Your task to perform on an android device: Open Amazon Image 0: 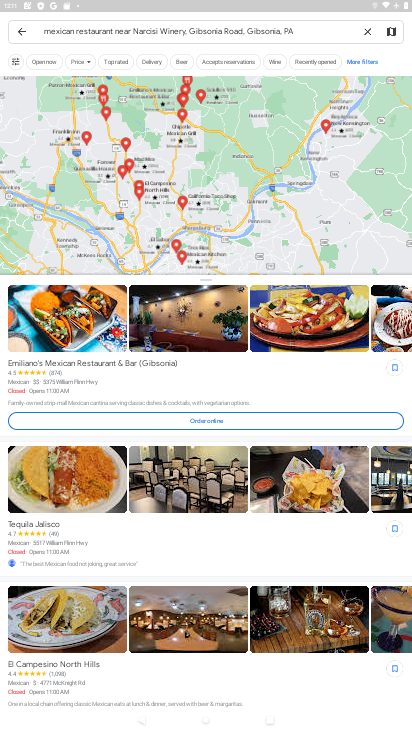
Step 0: press home button
Your task to perform on an android device: Open Amazon Image 1: 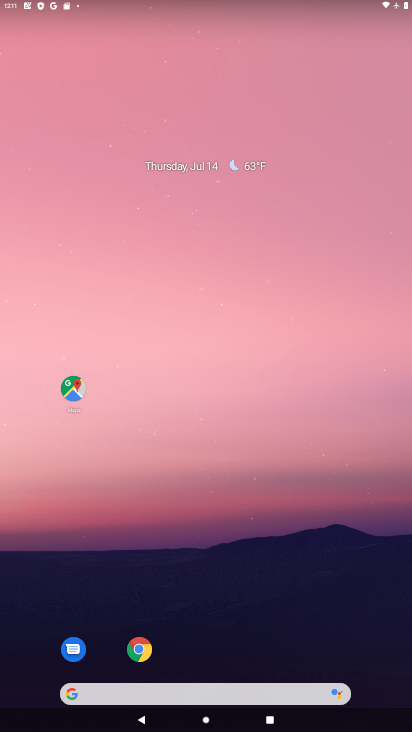
Step 1: click (133, 646)
Your task to perform on an android device: Open Amazon Image 2: 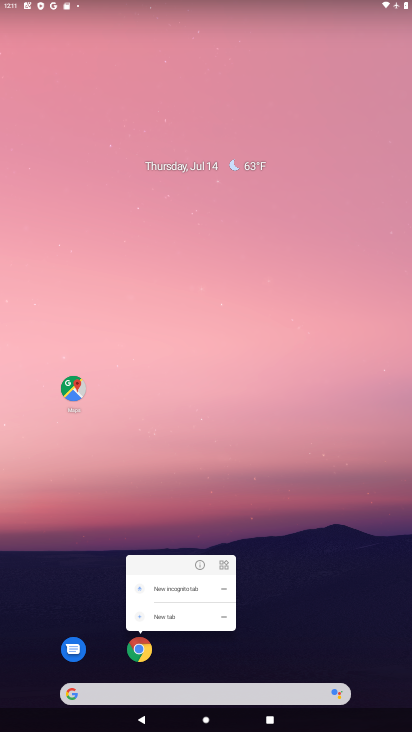
Step 2: click (133, 646)
Your task to perform on an android device: Open Amazon Image 3: 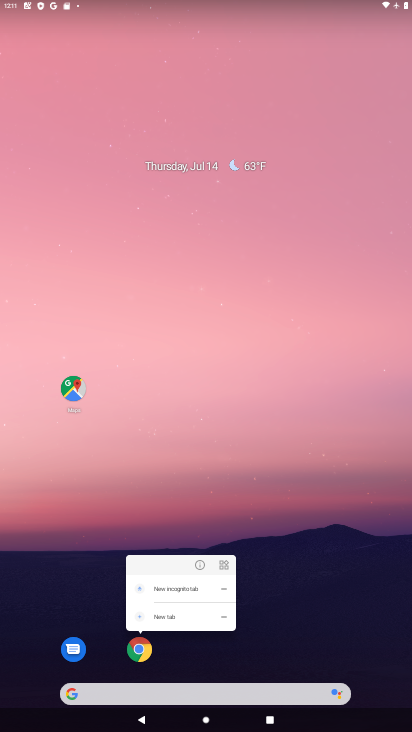
Step 3: click (221, 657)
Your task to perform on an android device: Open Amazon Image 4: 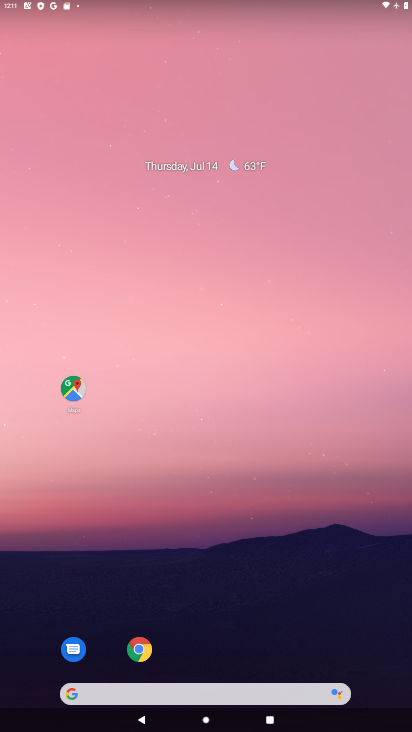
Step 4: drag from (221, 657) to (296, 297)
Your task to perform on an android device: Open Amazon Image 5: 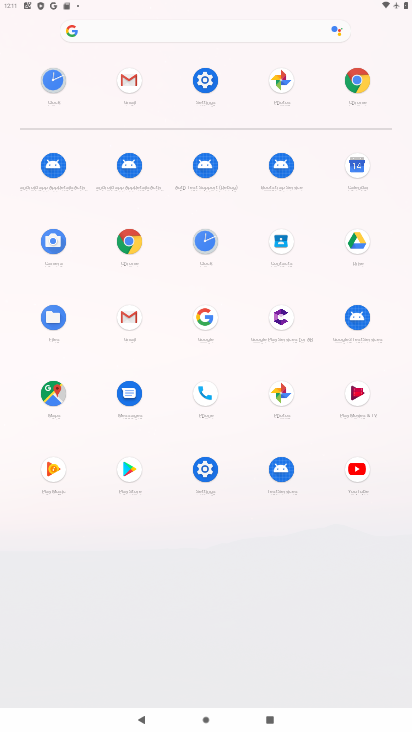
Step 5: click (116, 237)
Your task to perform on an android device: Open Amazon Image 6: 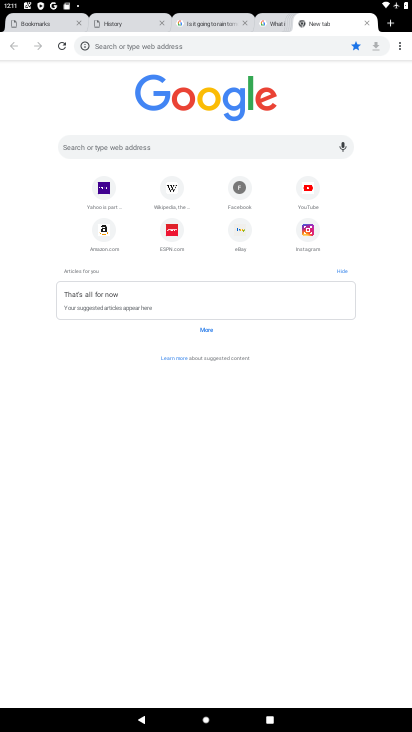
Step 6: click (98, 230)
Your task to perform on an android device: Open Amazon Image 7: 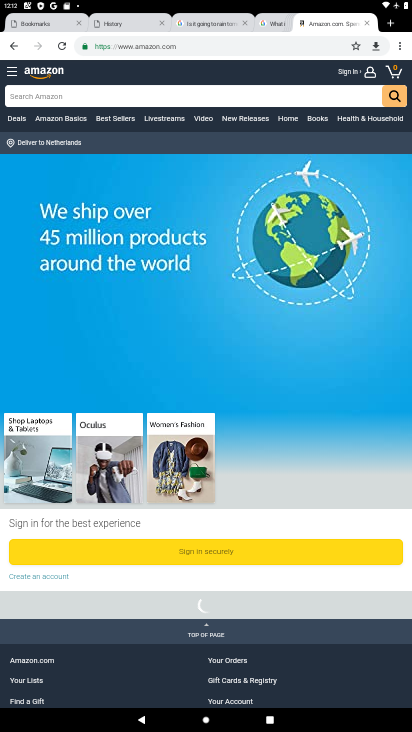
Step 7: task complete